Your task to perform on an android device: Go to Maps Image 0: 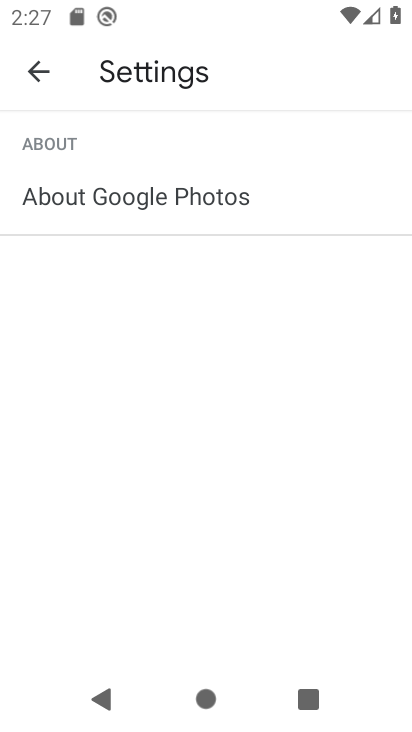
Step 0: press home button
Your task to perform on an android device: Go to Maps Image 1: 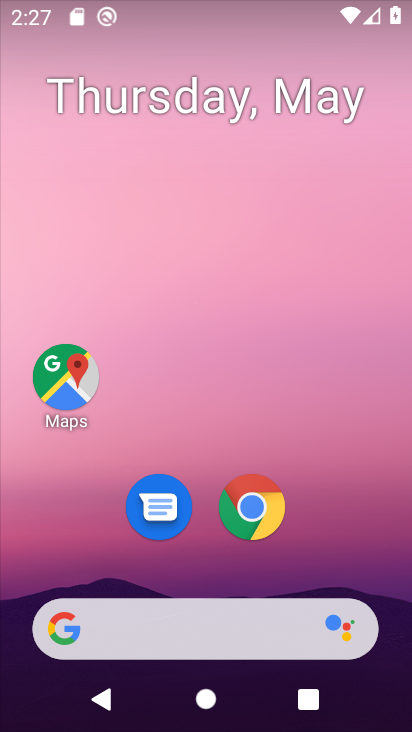
Step 1: click (74, 379)
Your task to perform on an android device: Go to Maps Image 2: 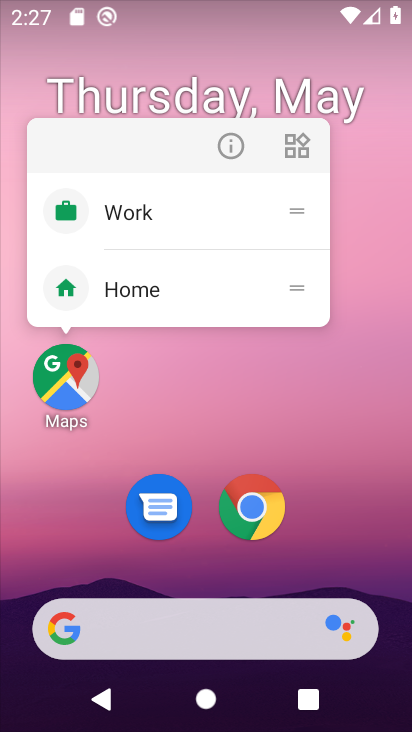
Step 2: click (74, 389)
Your task to perform on an android device: Go to Maps Image 3: 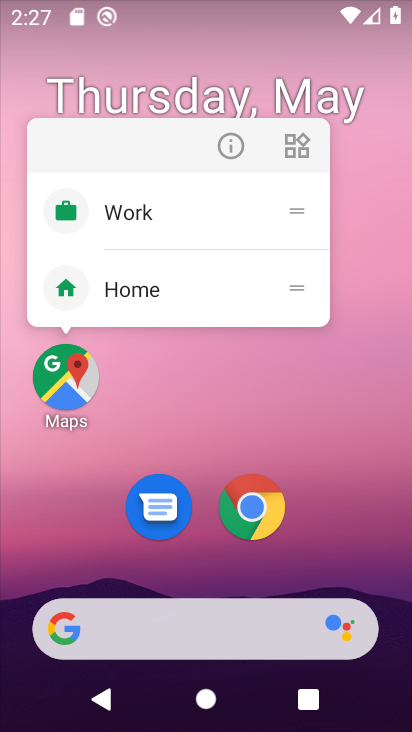
Step 3: click (67, 396)
Your task to perform on an android device: Go to Maps Image 4: 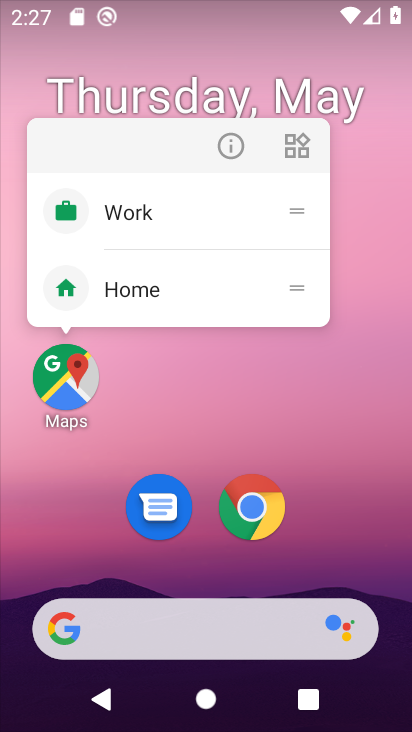
Step 4: click (62, 402)
Your task to perform on an android device: Go to Maps Image 5: 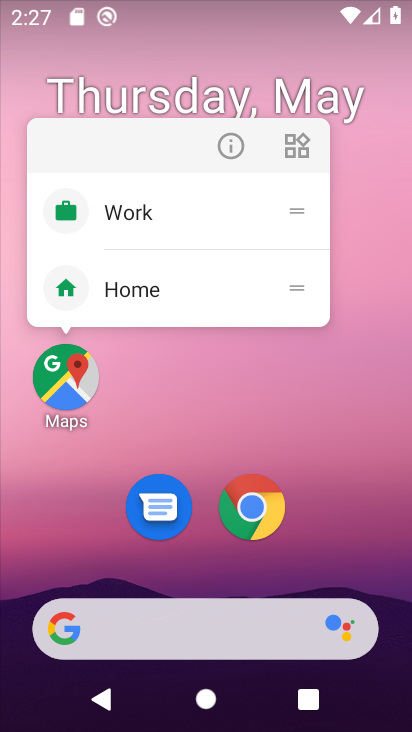
Step 5: click (62, 401)
Your task to perform on an android device: Go to Maps Image 6: 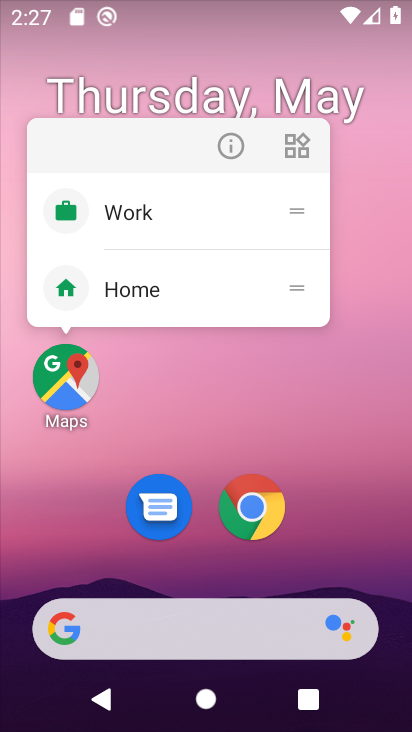
Step 6: click (75, 365)
Your task to perform on an android device: Go to Maps Image 7: 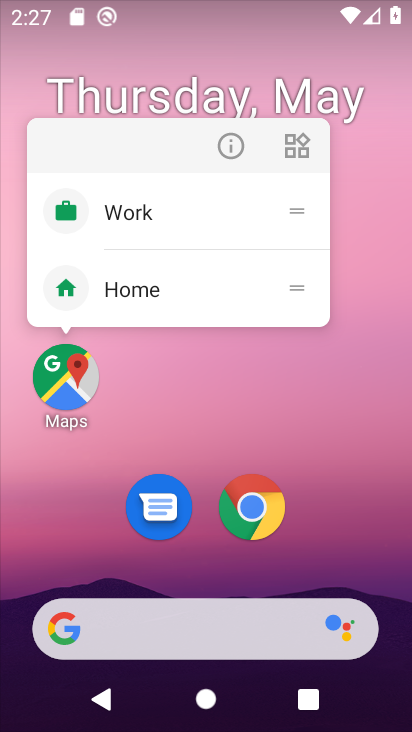
Step 7: click (72, 398)
Your task to perform on an android device: Go to Maps Image 8: 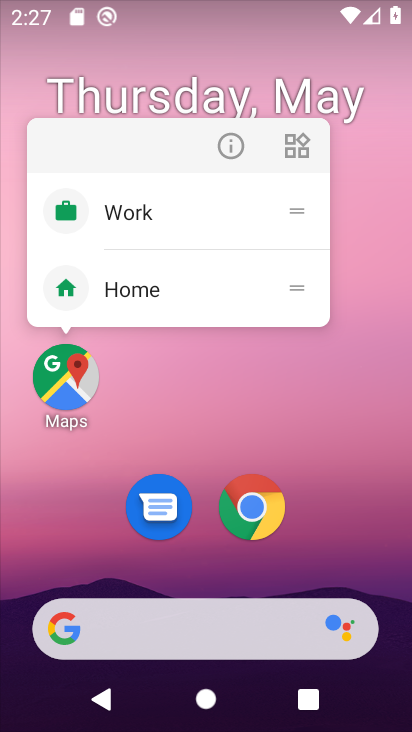
Step 8: click (63, 419)
Your task to perform on an android device: Go to Maps Image 9: 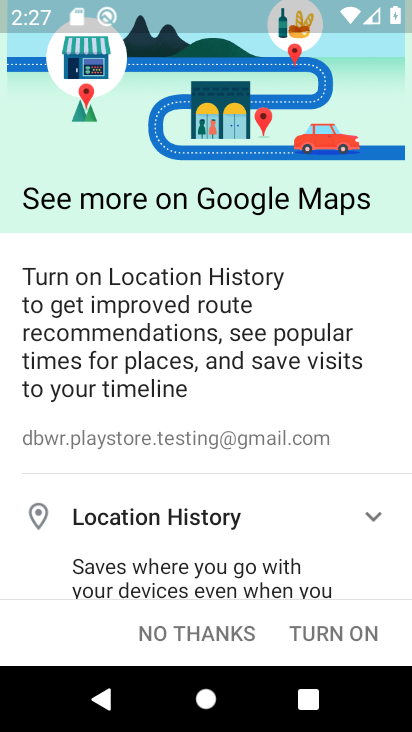
Step 9: click (212, 616)
Your task to perform on an android device: Go to Maps Image 10: 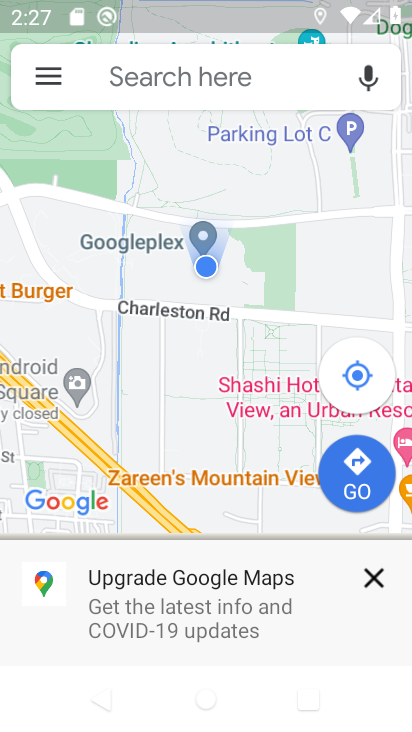
Step 10: click (367, 576)
Your task to perform on an android device: Go to Maps Image 11: 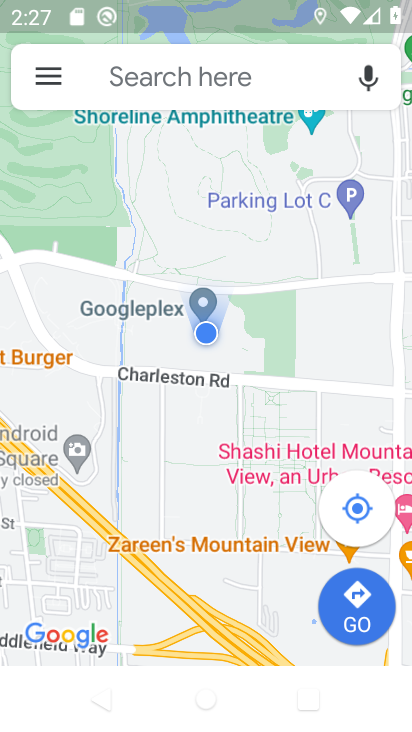
Step 11: task complete